Your task to perform on an android device: What's the weather? Image 0: 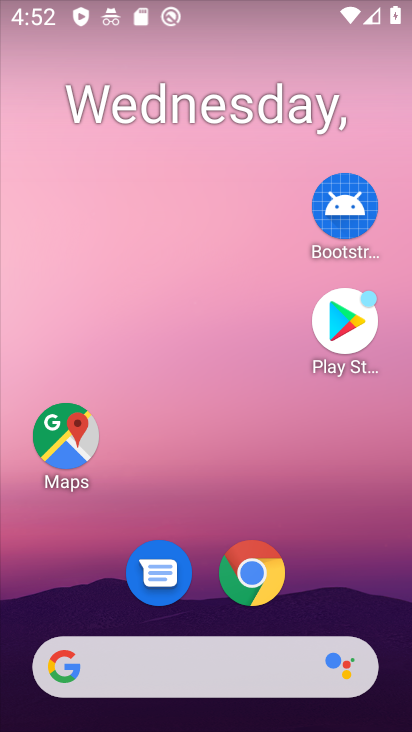
Step 0: drag from (388, 622) to (255, 158)
Your task to perform on an android device: What's the weather? Image 1: 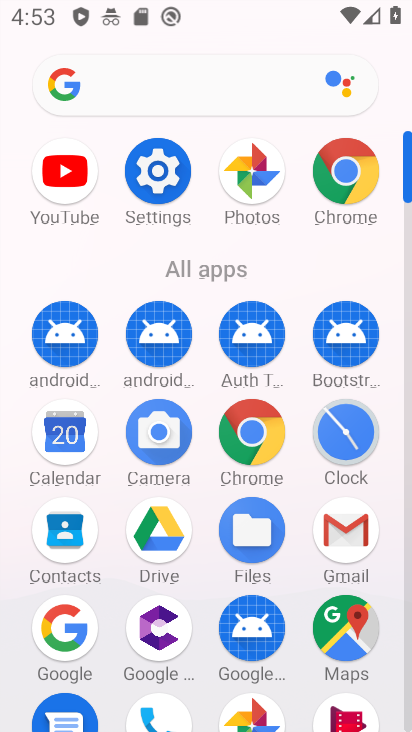
Step 1: click (333, 178)
Your task to perform on an android device: What's the weather? Image 2: 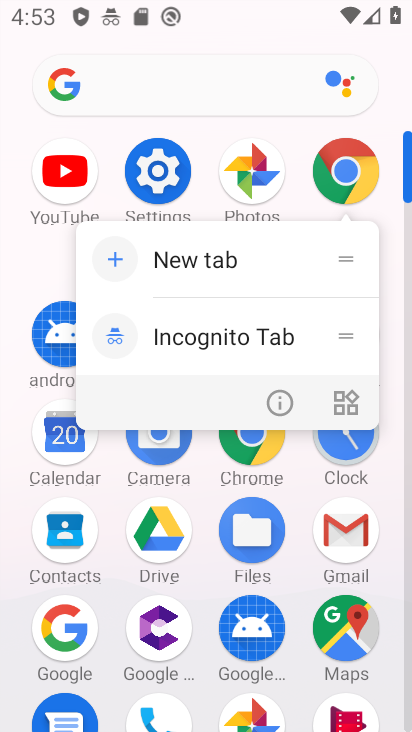
Step 2: click (350, 164)
Your task to perform on an android device: What's the weather? Image 3: 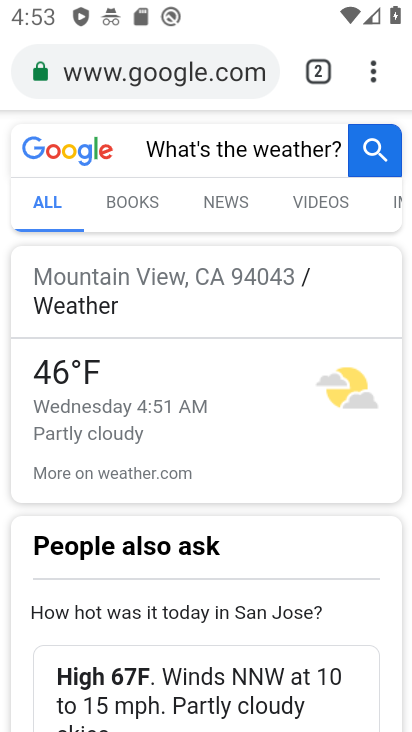
Step 3: click (289, 149)
Your task to perform on an android device: What's the weather? Image 4: 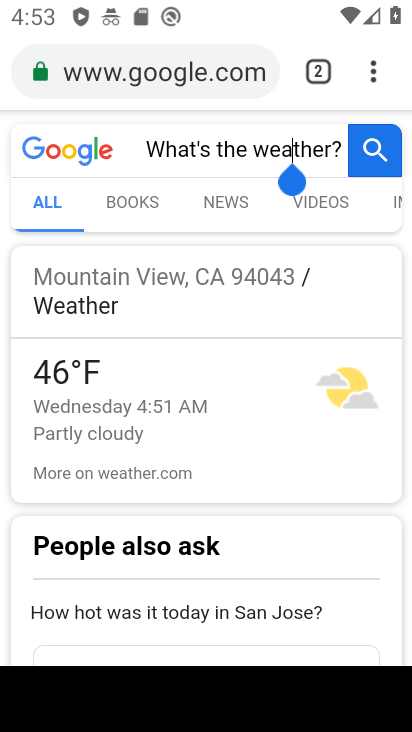
Step 4: task complete